Your task to perform on an android device: Toggle the flashlight Image 0: 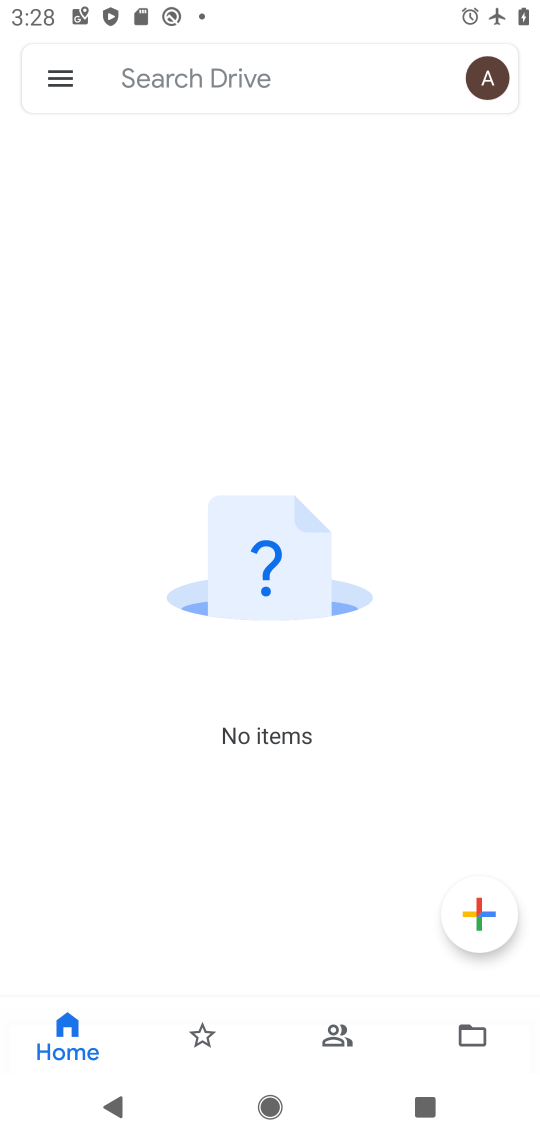
Step 0: press back button
Your task to perform on an android device: Toggle the flashlight Image 1: 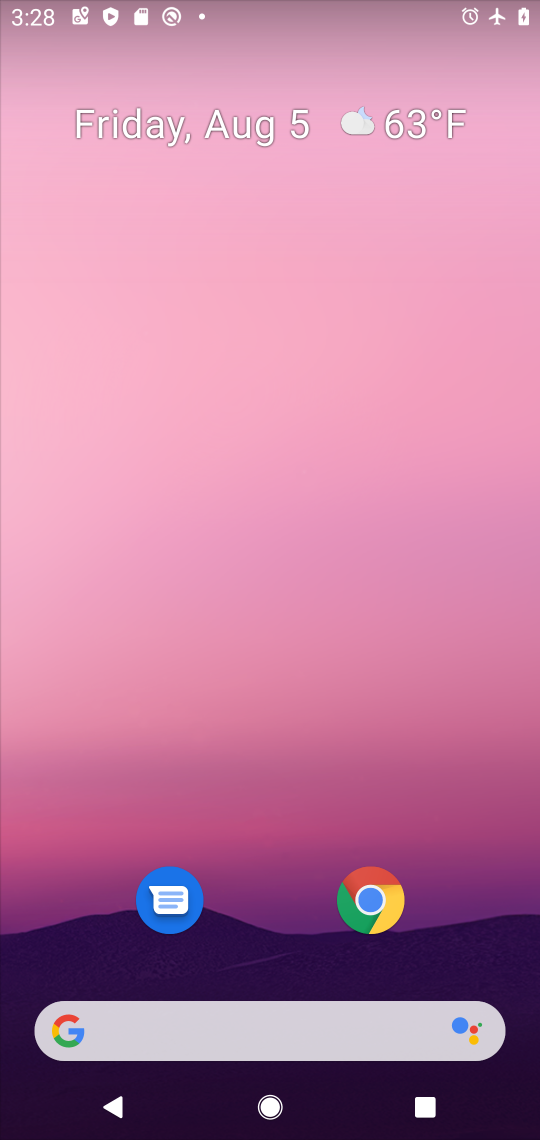
Step 1: drag from (305, 955) to (300, 30)
Your task to perform on an android device: Toggle the flashlight Image 2: 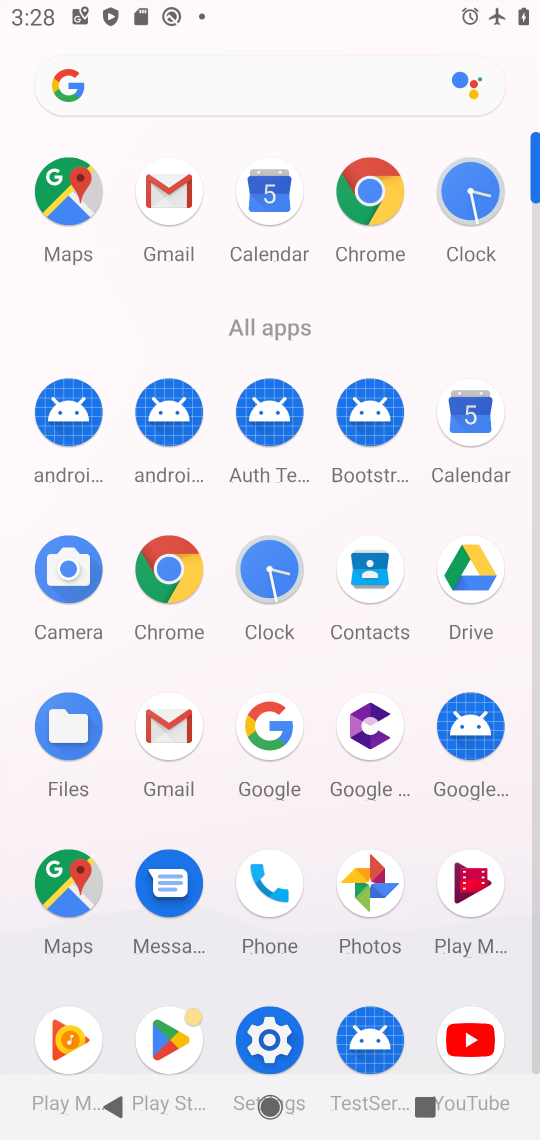
Step 2: click (256, 1024)
Your task to perform on an android device: Toggle the flashlight Image 3: 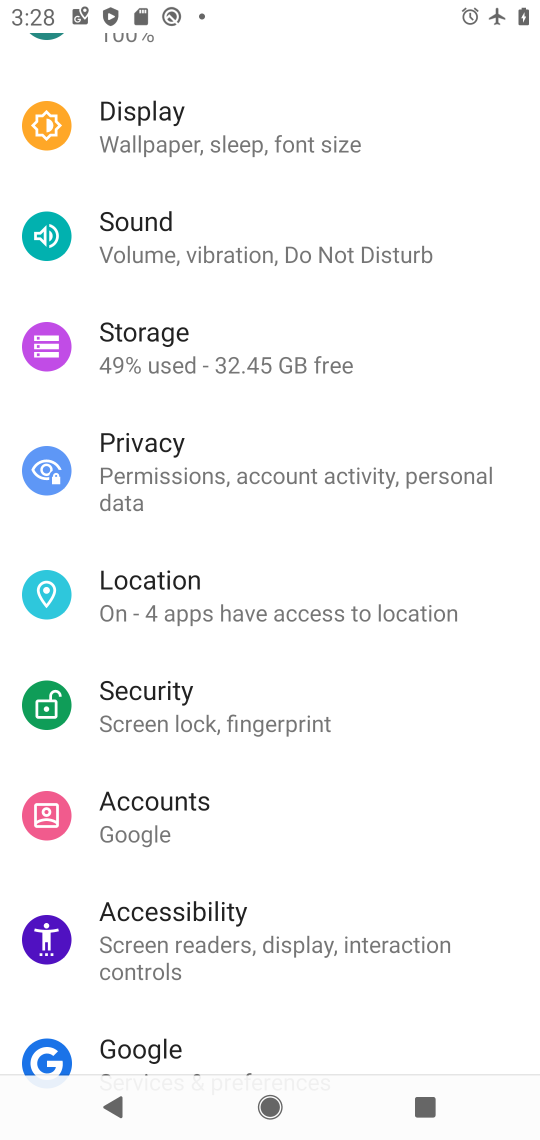
Step 3: drag from (247, 108) to (327, 1031)
Your task to perform on an android device: Toggle the flashlight Image 4: 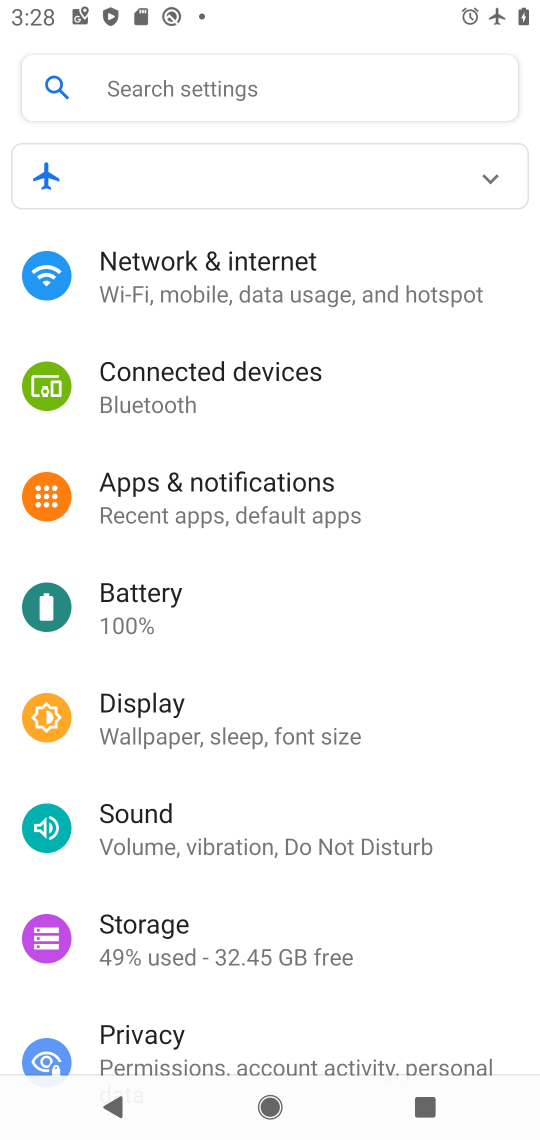
Step 4: click (239, 90)
Your task to perform on an android device: Toggle the flashlight Image 5: 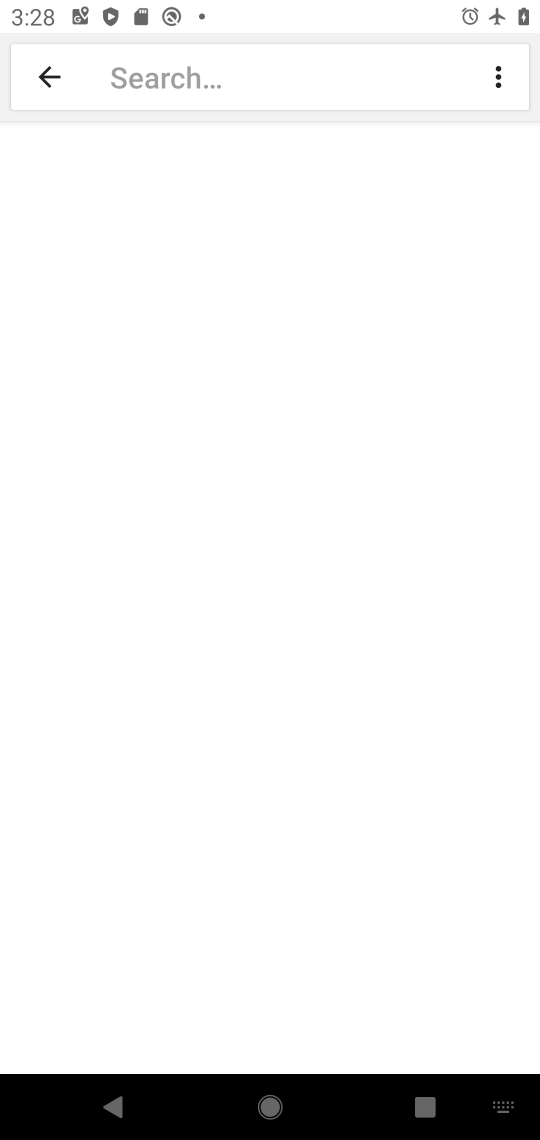
Step 5: click (187, 94)
Your task to perform on an android device: Toggle the flashlight Image 6: 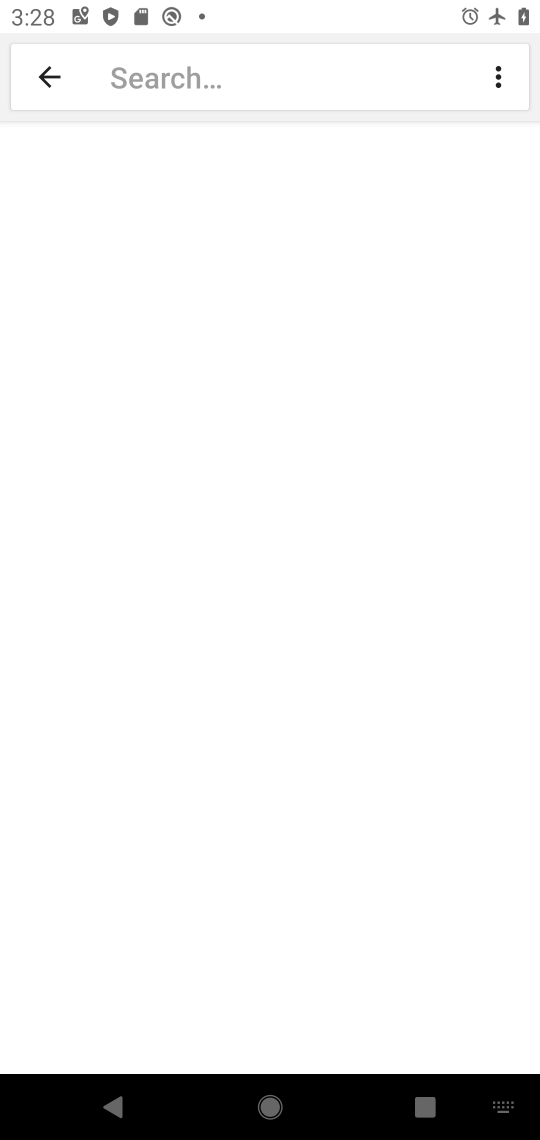
Step 6: type "flashlight"
Your task to perform on an android device: Toggle the flashlight Image 7: 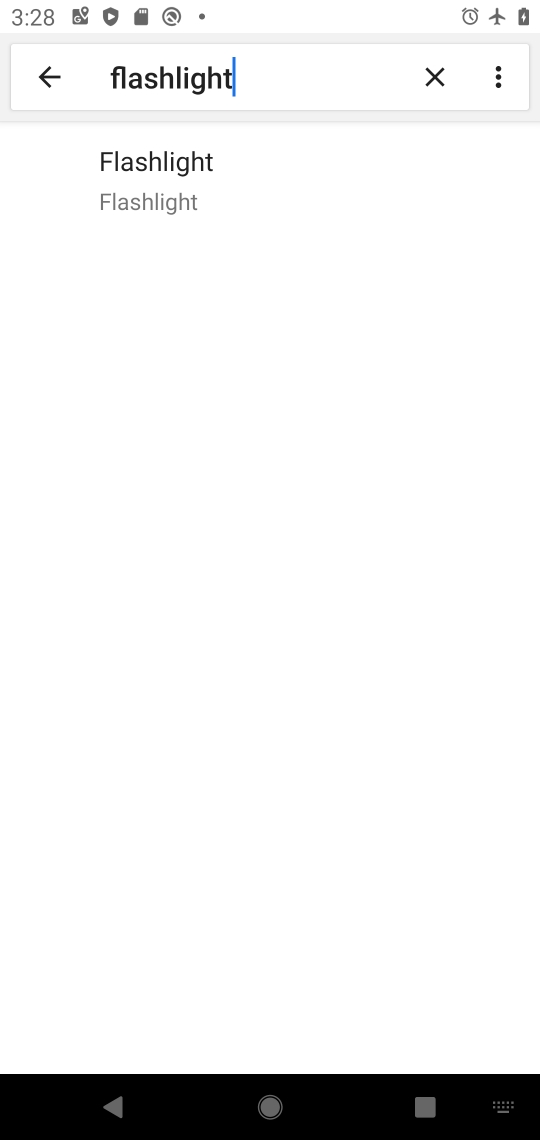
Step 7: click (213, 182)
Your task to perform on an android device: Toggle the flashlight Image 8: 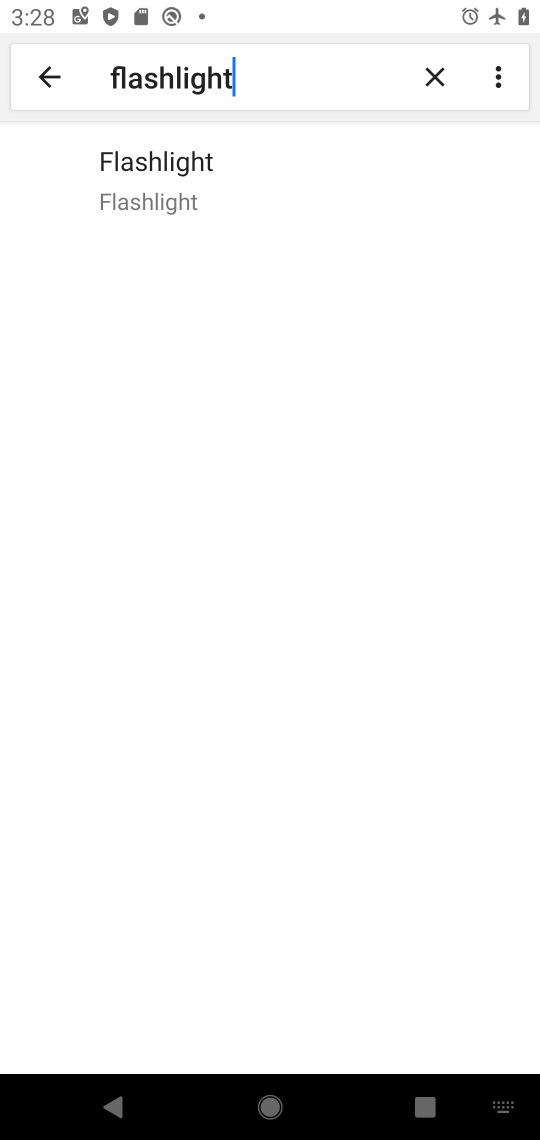
Step 8: task complete